Your task to perform on an android device: toggle notifications settings in the gmail app Image 0: 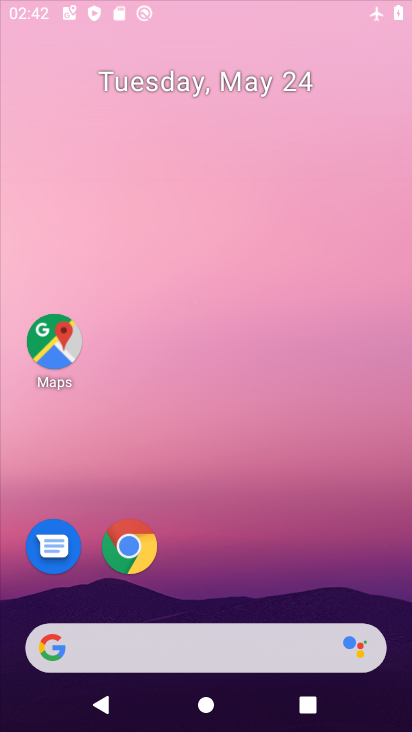
Step 0: drag from (264, 212) to (228, 352)
Your task to perform on an android device: toggle notifications settings in the gmail app Image 1: 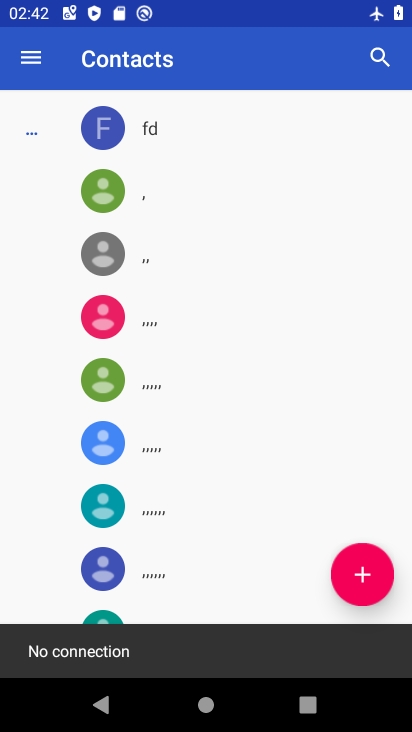
Step 1: press home button
Your task to perform on an android device: toggle notifications settings in the gmail app Image 2: 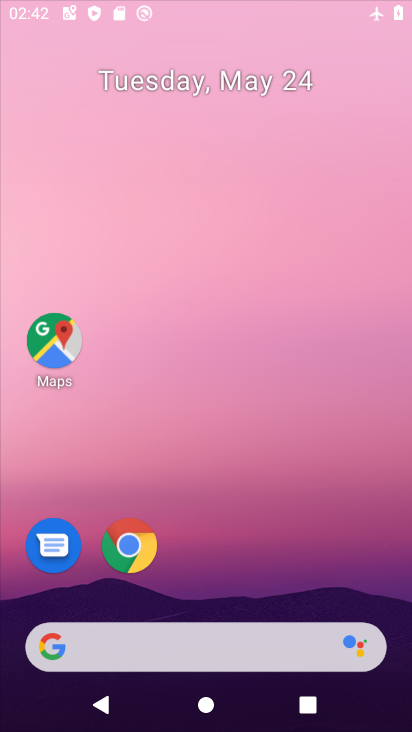
Step 2: drag from (187, 595) to (291, 62)
Your task to perform on an android device: toggle notifications settings in the gmail app Image 3: 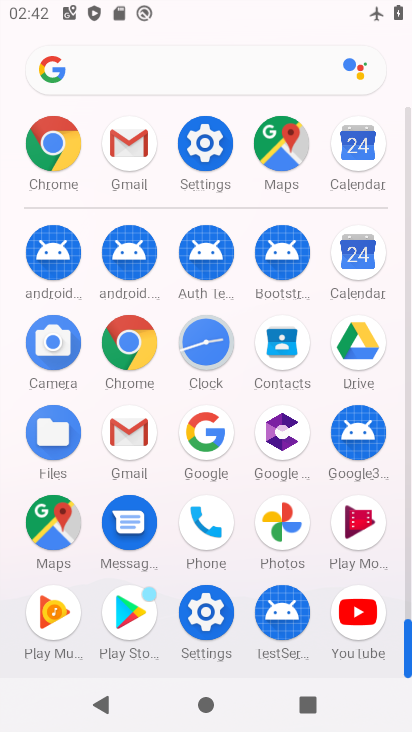
Step 3: click (141, 437)
Your task to perform on an android device: toggle notifications settings in the gmail app Image 4: 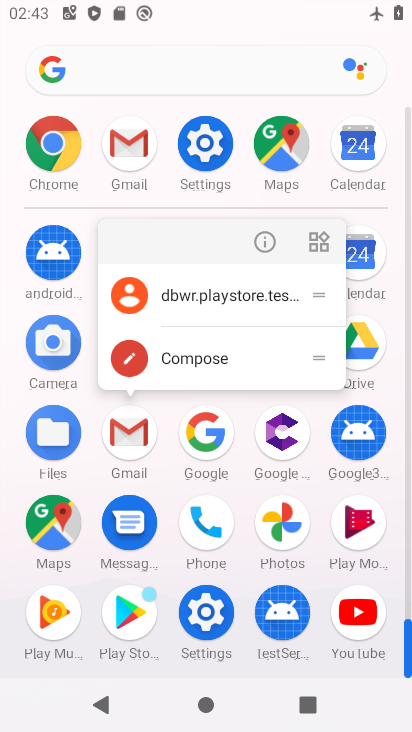
Step 4: click (264, 242)
Your task to perform on an android device: toggle notifications settings in the gmail app Image 5: 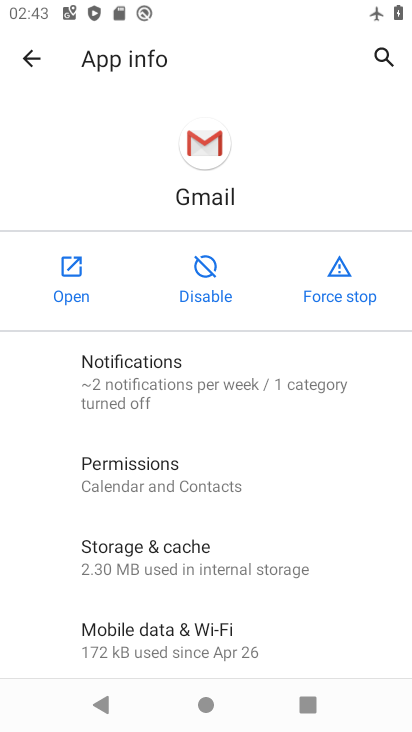
Step 5: click (81, 285)
Your task to perform on an android device: toggle notifications settings in the gmail app Image 6: 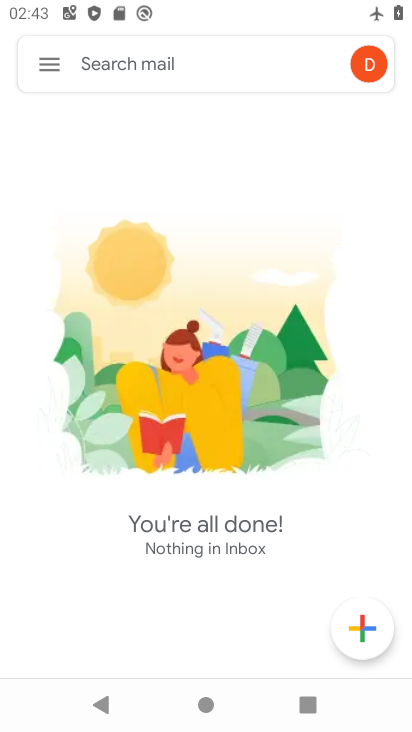
Step 6: click (47, 61)
Your task to perform on an android device: toggle notifications settings in the gmail app Image 7: 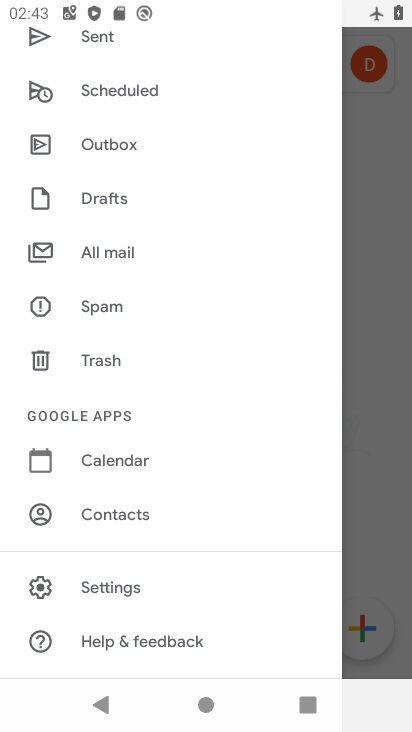
Step 7: click (124, 586)
Your task to perform on an android device: toggle notifications settings in the gmail app Image 8: 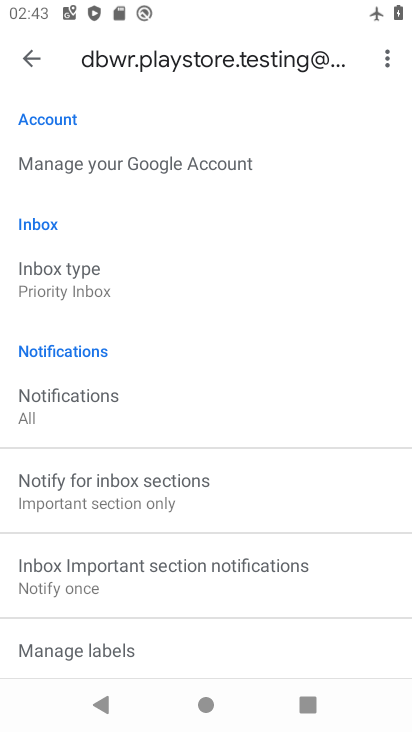
Step 8: drag from (199, 593) to (289, 199)
Your task to perform on an android device: toggle notifications settings in the gmail app Image 9: 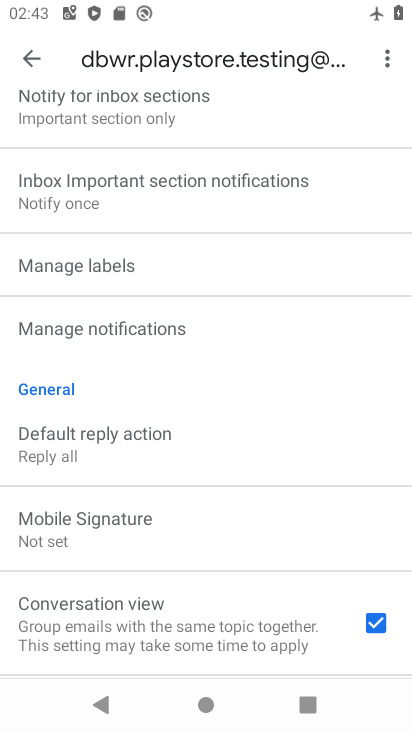
Step 9: click (142, 331)
Your task to perform on an android device: toggle notifications settings in the gmail app Image 10: 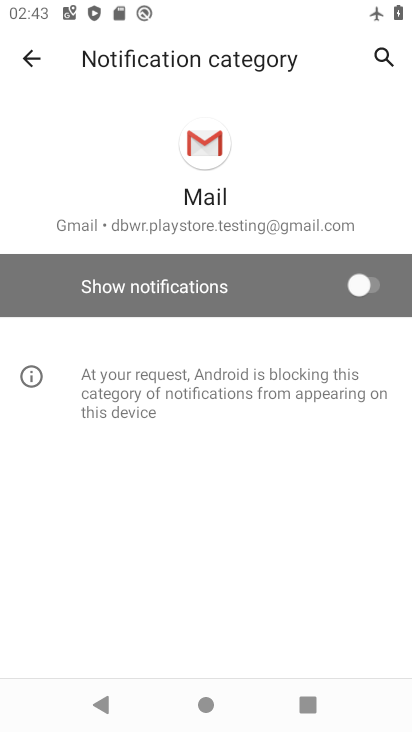
Step 10: click (274, 279)
Your task to perform on an android device: toggle notifications settings in the gmail app Image 11: 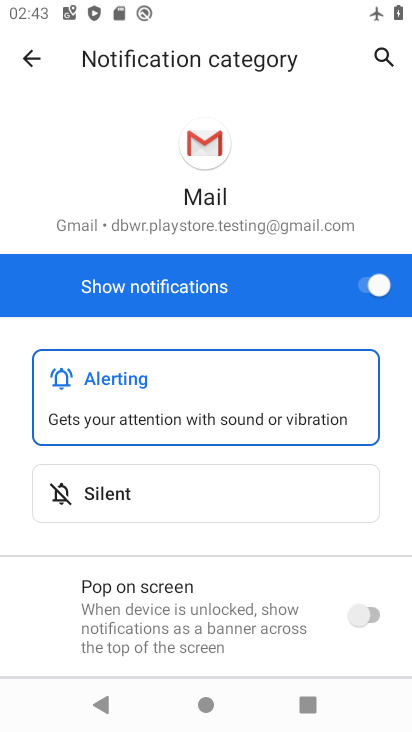
Step 11: task complete